Your task to perform on an android device: find snoozed emails in the gmail app Image 0: 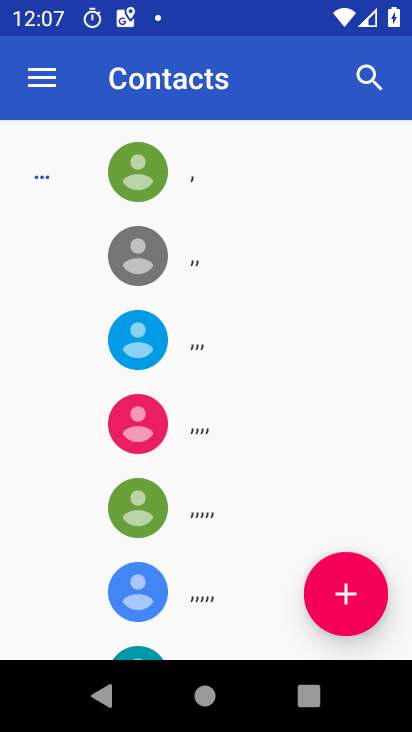
Step 0: press home button
Your task to perform on an android device: find snoozed emails in the gmail app Image 1: 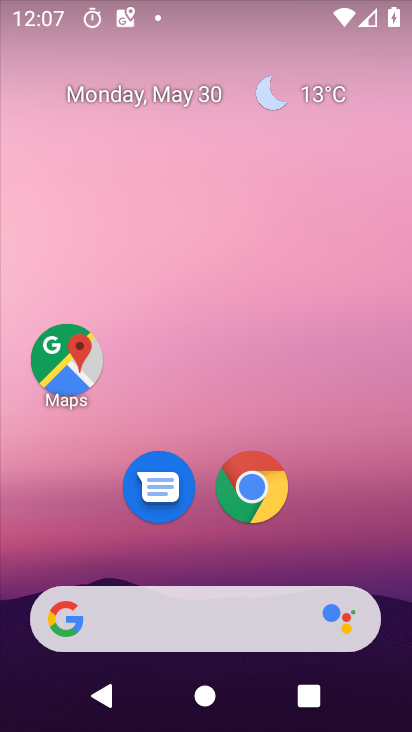
Step 1: drag from (381, 716) to (351, 215)
Your task to perform on an android device: find snoozed emails in the gmail app Image 2: 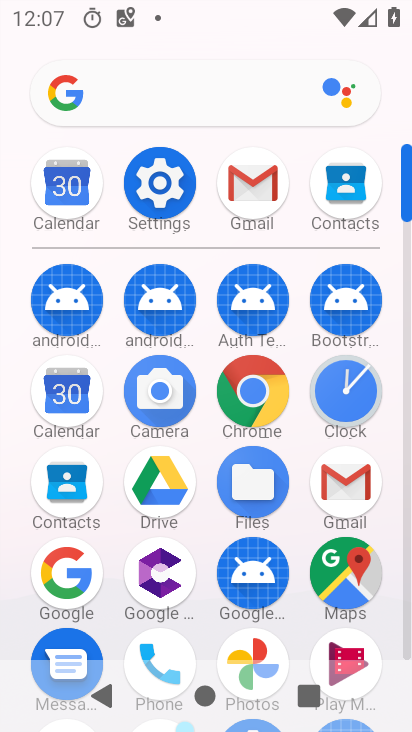
Step 2: click (342, 490)
Your task to perform on an android device: find snoozed emails in the gmail app Image 3: 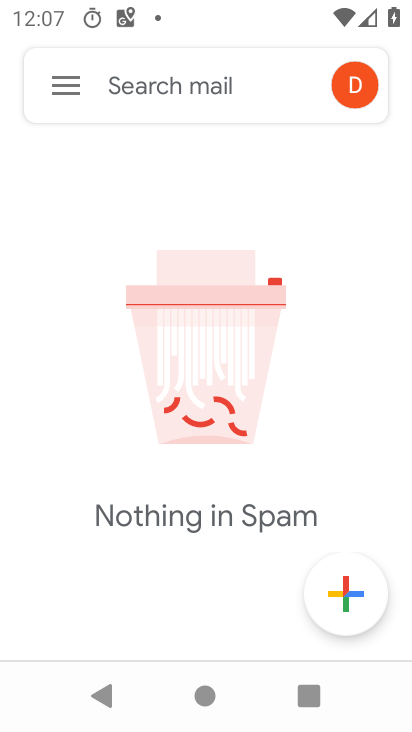
Step 3: click (62, 72)
Your task to perform on an android device: find snoozed emails in the gmail app Image 4: 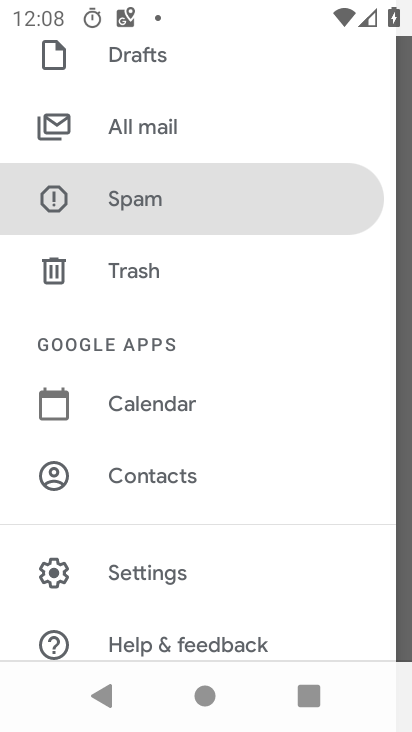
Step 4: drag from (248, 89) to (252, 553)
Your task to perform on an android device: find snoozed emails in the gmail app Image 5: 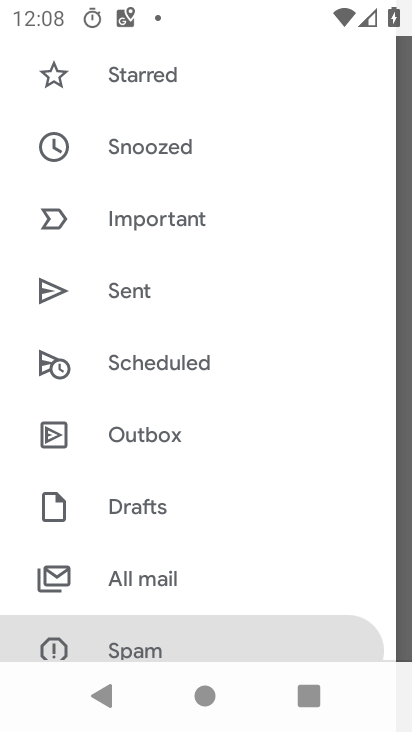
Step 5: click (169, 146)
Your task to perform on an android device: find snoozed emails in the gmail app Image 6: 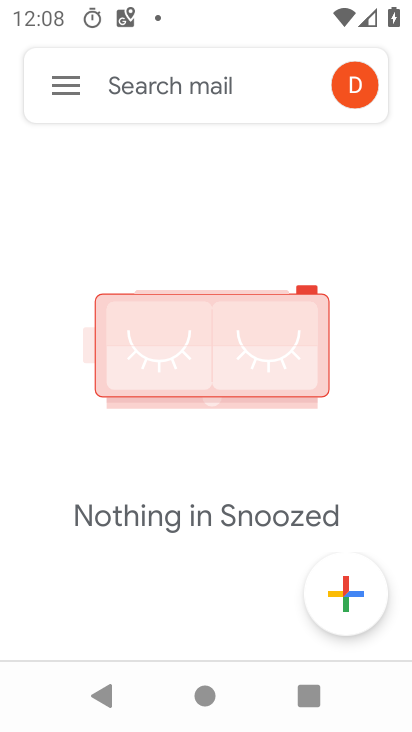
Step 6: task complete